Your task to perform on an android device: find snoozed emails in the gmail app Image 0: 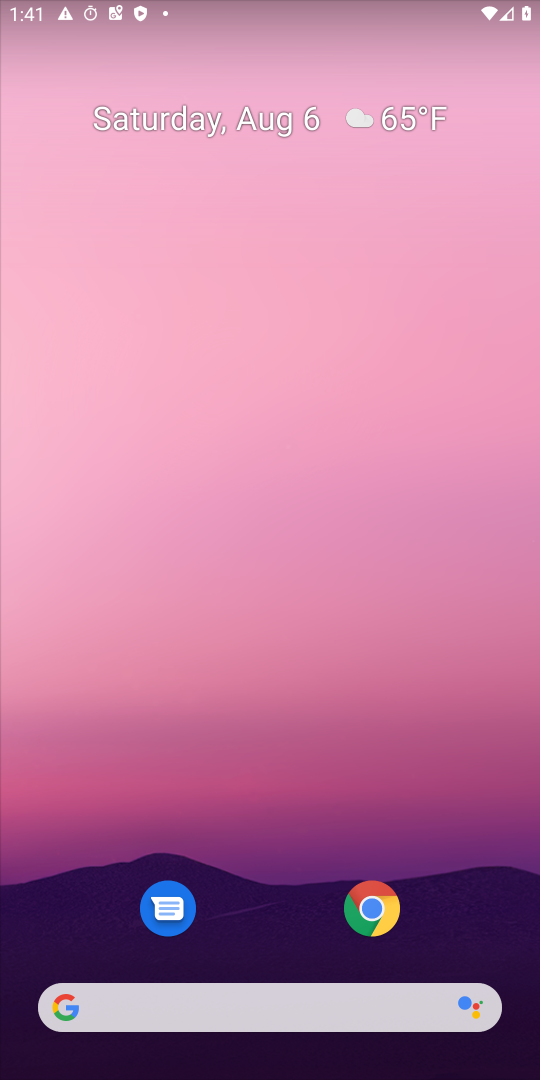
Step 0: drag from (282, 899) to (236, 140)
Your task to perform on an android device: find snoozed emails in the gmail app Image 1: 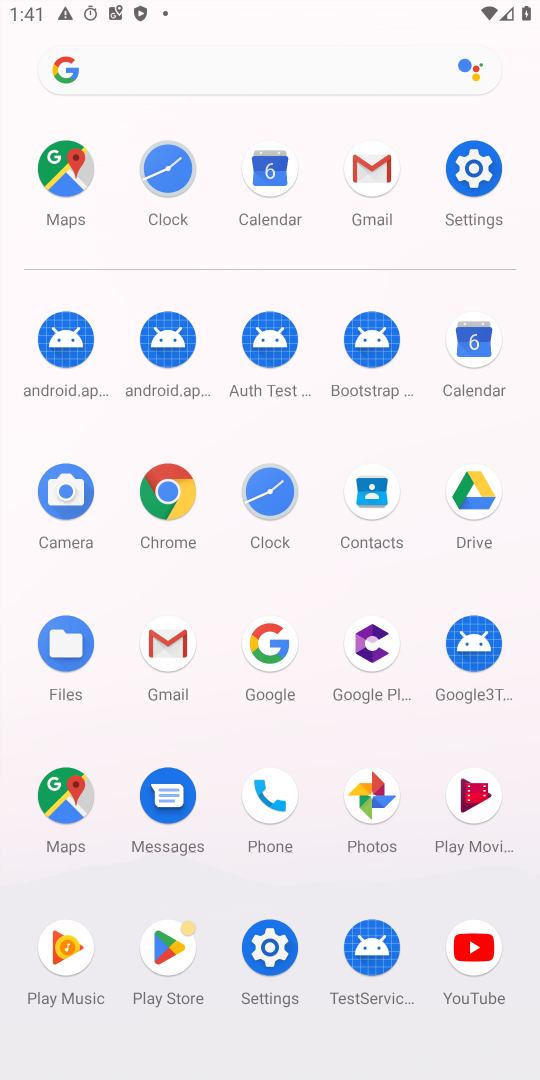
Step 1: click (168, 637)
Your task to perform on an android device: find snoozed emails in the gmail app Image 2: 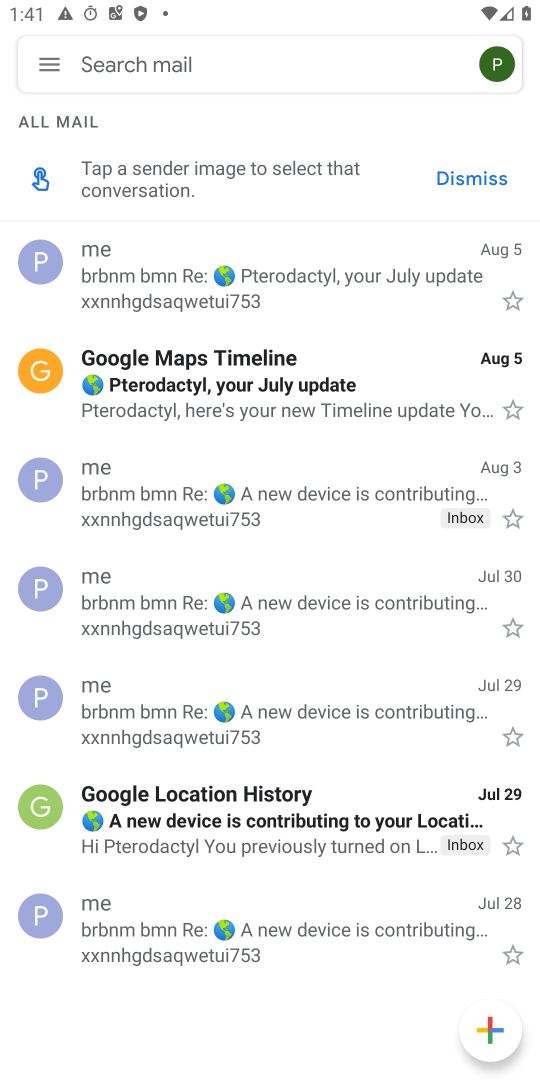
Step 2: click (44, 67)
Your task to perform on an android device: find snoozed emails in the gmail app Image 3: 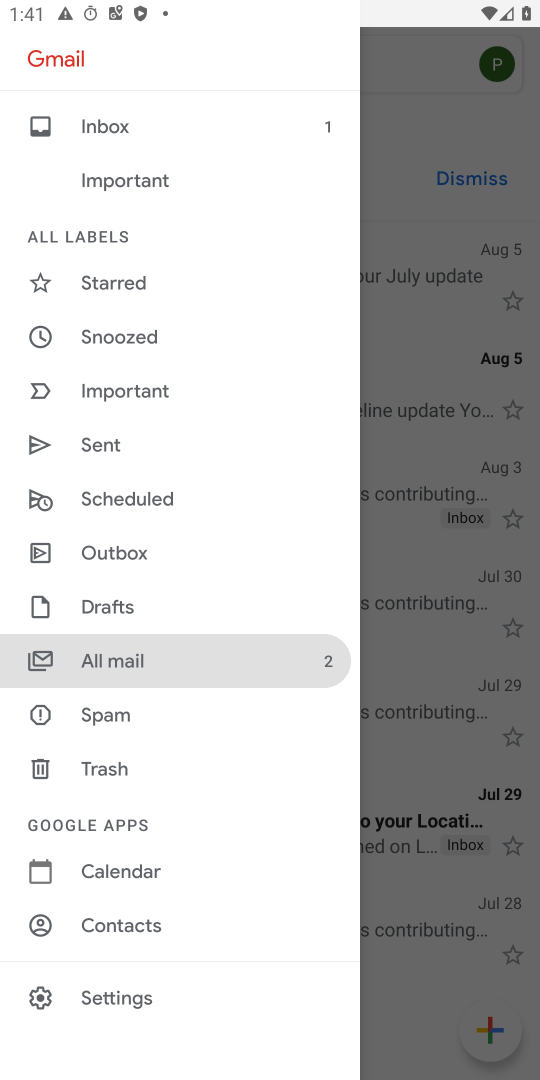
Step 3: click (91, 332)
Your task to perform on an android device: find snoozed emails in the gmail app Image 4: 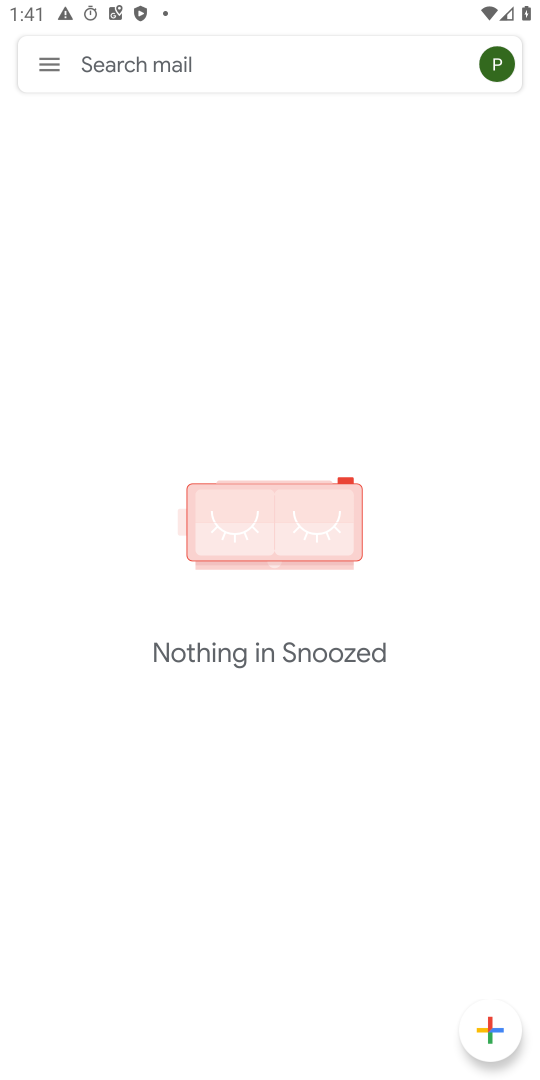
Step 4: task complete